Your task to perform on an android device: open chrome and create a bookmark for the current page Image 0: 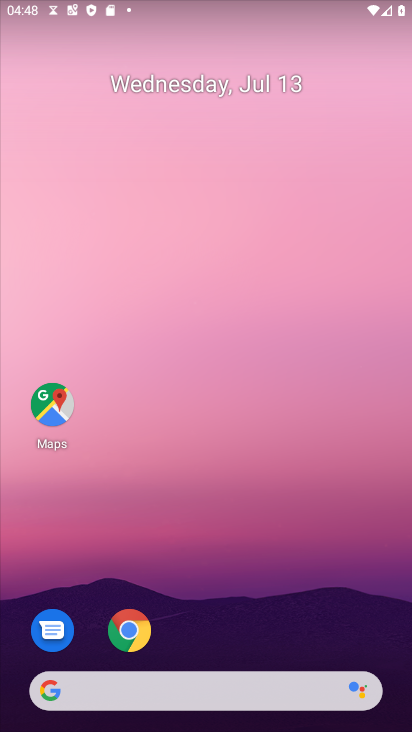
Step 0: drag from (152, 707) to (263, 55)
Your task to perform on an android device: open chrome and create a bookmark for the current page Image 1: 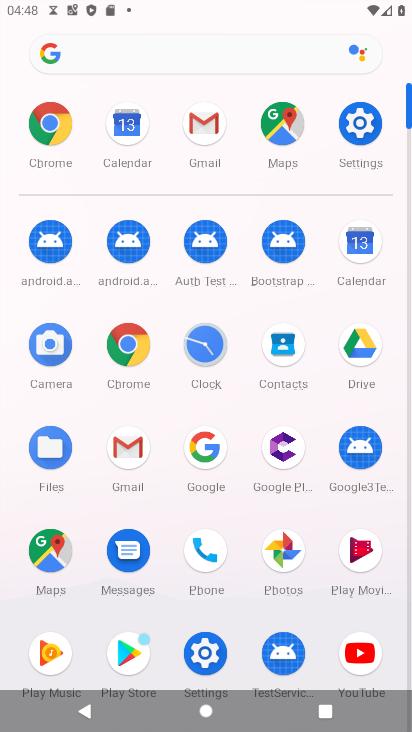
Step 1: click (130, 334)
Your task to perform on an android device: open chrome and create a bookmark for the current page Image 2: 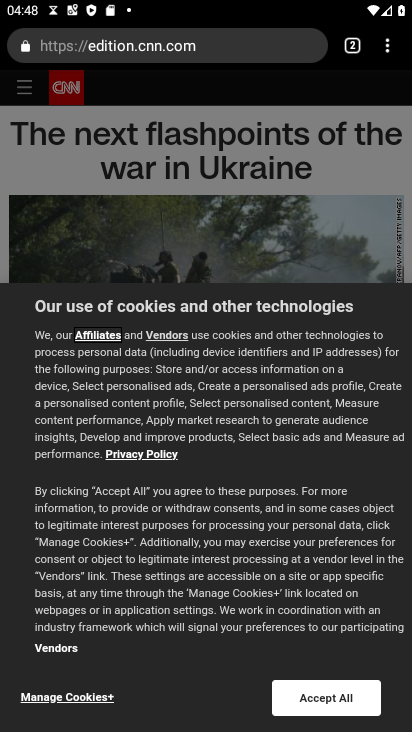
Step 2: task complete